Your task to perform on an android device: turn off location Image 0: 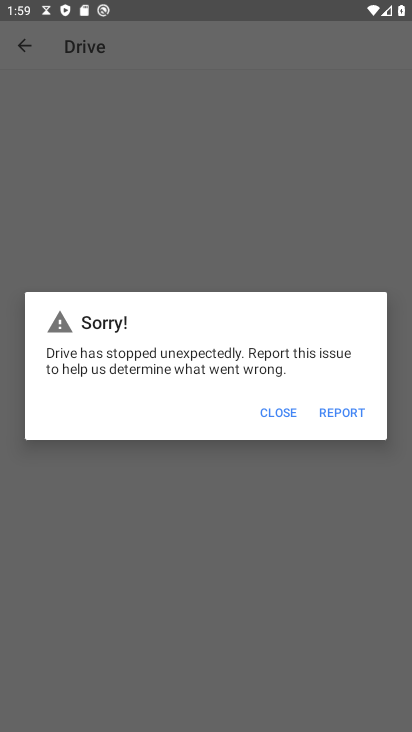
Step 0: press home button
Your task to perform on an android device: turn off location Image 1: 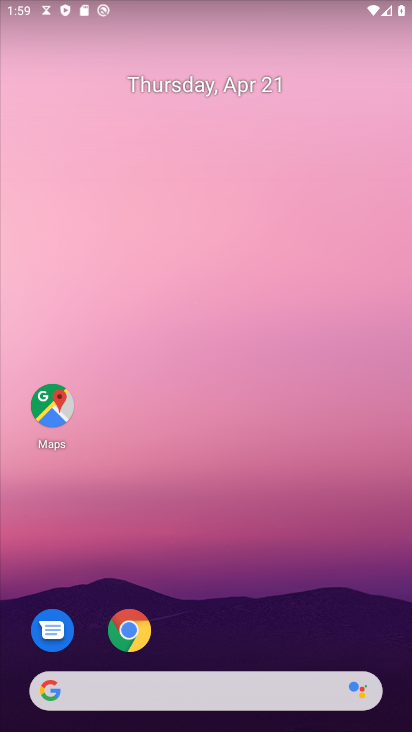
Step 1: drag from (339, 629) to (377, 40)
Your task to perform on an android device: turn off location Image 2: 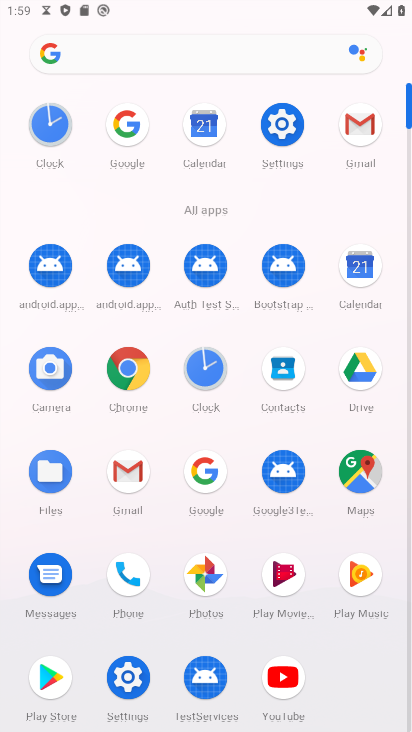
Step 2: click (269, 133)
Your task to perform on an android device: turn off location Image 3: 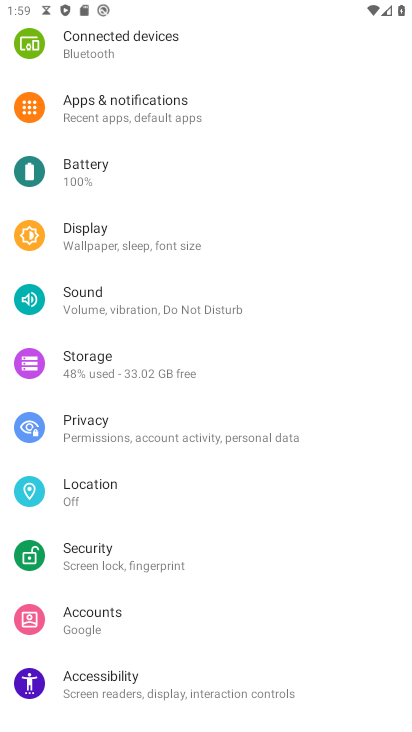
Step 3: click (89, 486)
Your task to perform on an android device: turn off location Image 4: 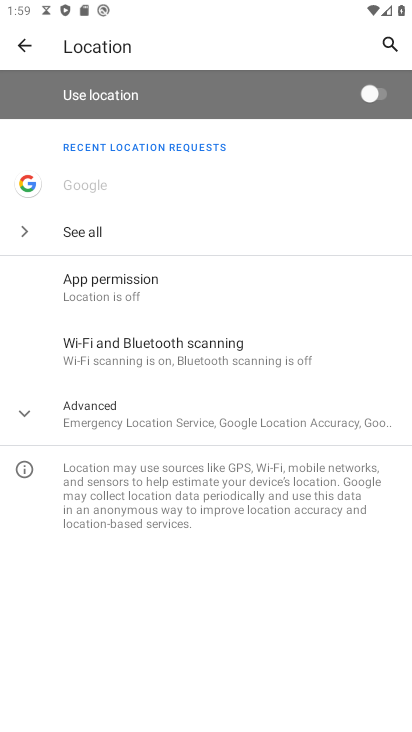
Step 4: task complete